Your task to perform on an android device: set the stopwatch Image 0: 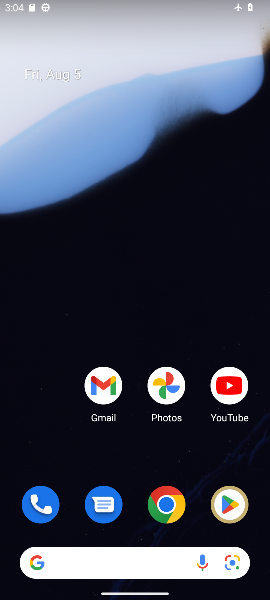
Step 0: drag from (84, 347) to (152, 77)
Your task to perform on an android device: set the stopwatch Image 1: 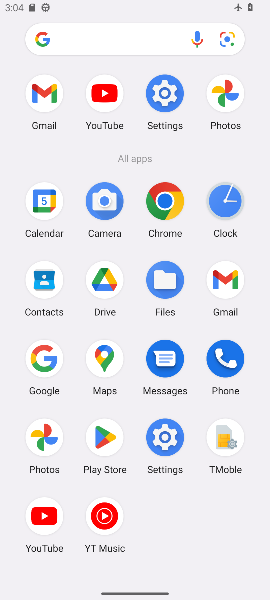
Step 1: click (229, 208)
Your task to perform on an android device: set the stopwatch Image 2: 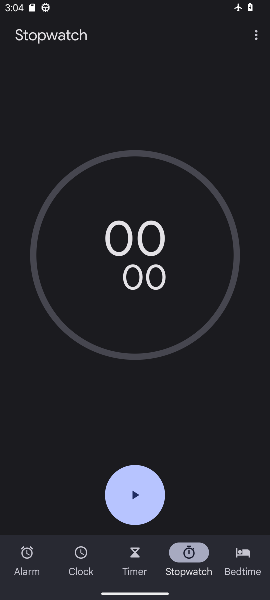
Step 2: click (133, 486)
Your task to perform on an android device: set the stopwatch Image 3: 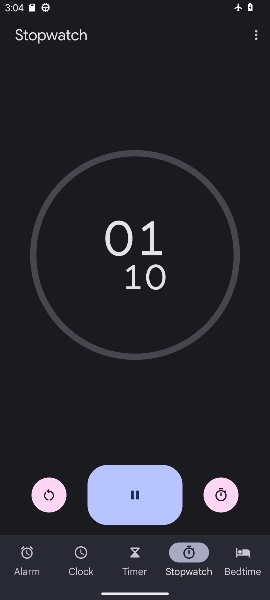
Step 3: click (140, 500)
Your task to perform on an android device: set the stopwatch Image 4: 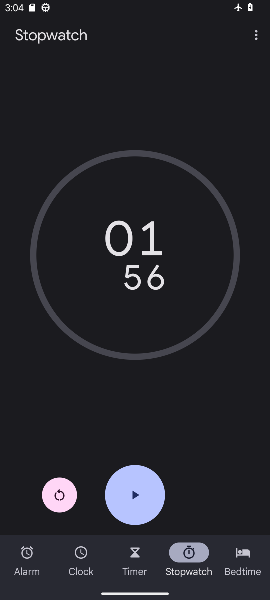
Step 4: task complete